Your task to perform on an android device: find snoozed emails in the gmail app Image 0: 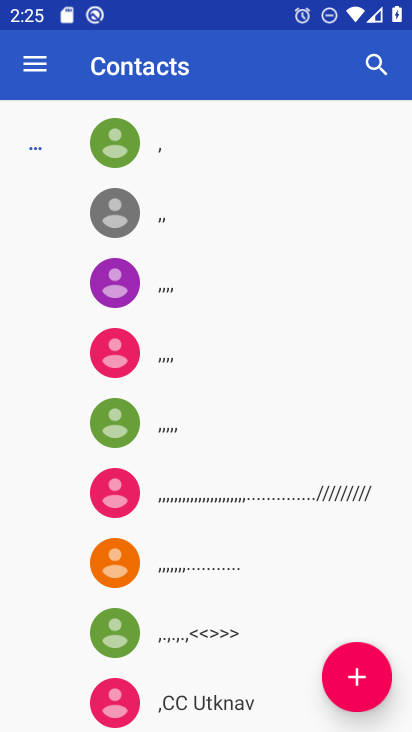
Step 0: press home button
Your task to perform on an android device: find snoozed emails in the gmail app Image 1: 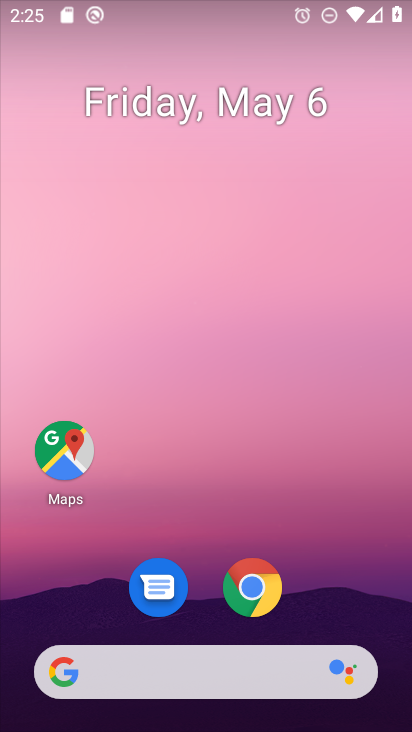
Step 1: drag from (224, 512) to (332, 81)
Your task to perform on an android device: find snoozed emails in the gmail app Image 2: 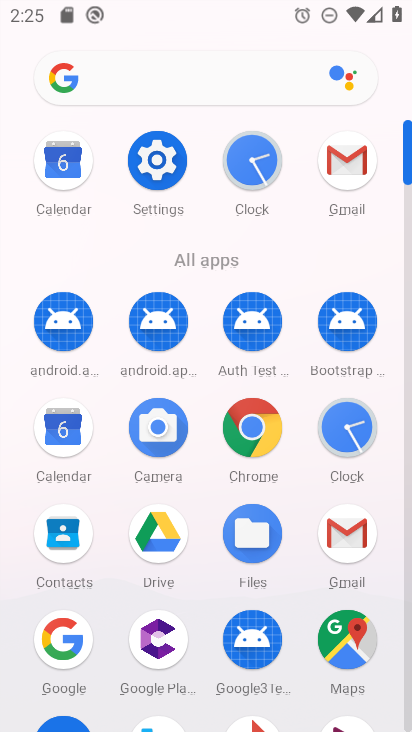
Step 2: click (341, 152)
Your task to perform on an android device: find snoozed emails in the gmail app Image 3: 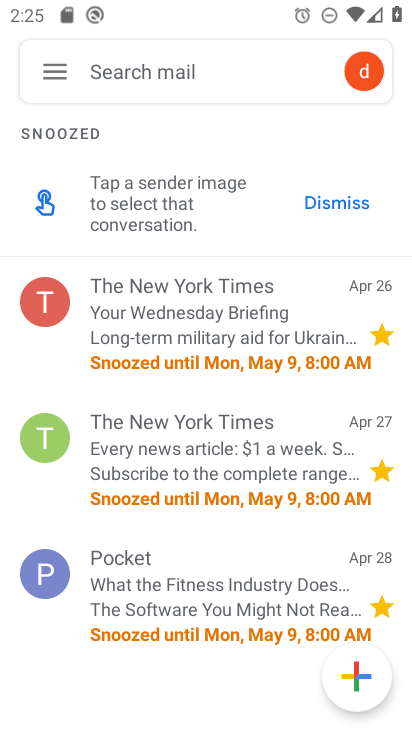
Step 3: task complete